Your task to perform on an android device: turn off sleep mode Image 0: 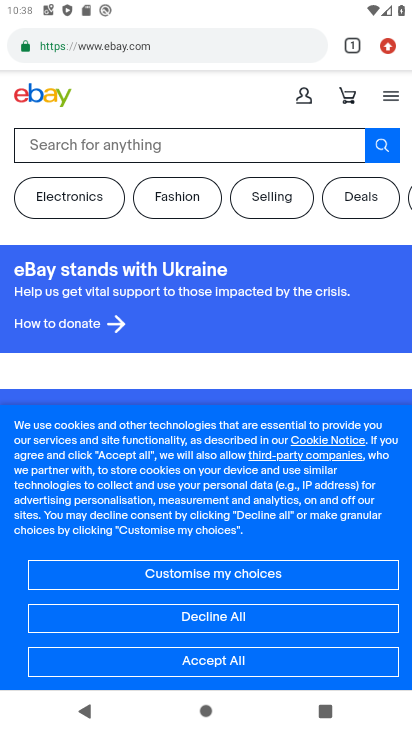
Step 0: press back button
Your task to perform on an android device: turn off sleep mode Image 1: 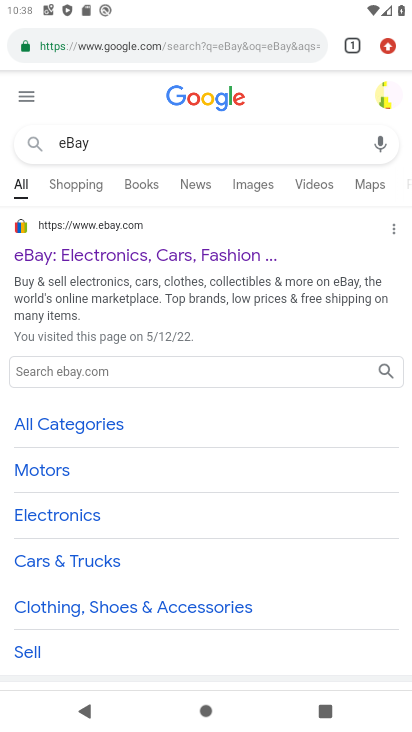
Step 1: press back button
Your task to perform on an android device: turn off sleep mode Image 2: 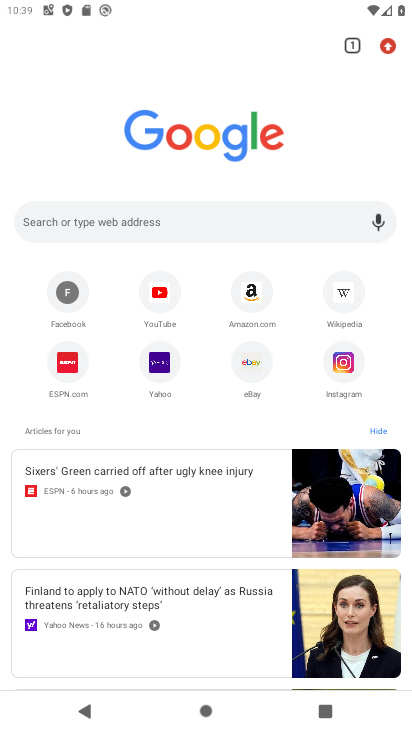
Step 2: press back button
Your task to perform on an android device: turn off sleep mode Image 3: 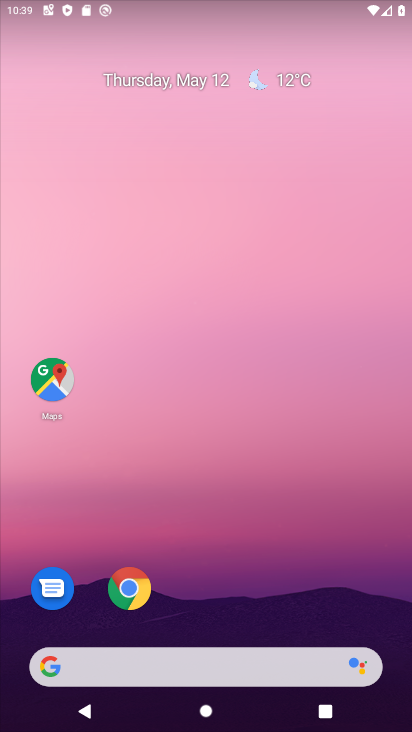
Step 3: drag from (232, 587) to (228, 170)
Your task to perform on an android device: turn off sleep mode Image 4: 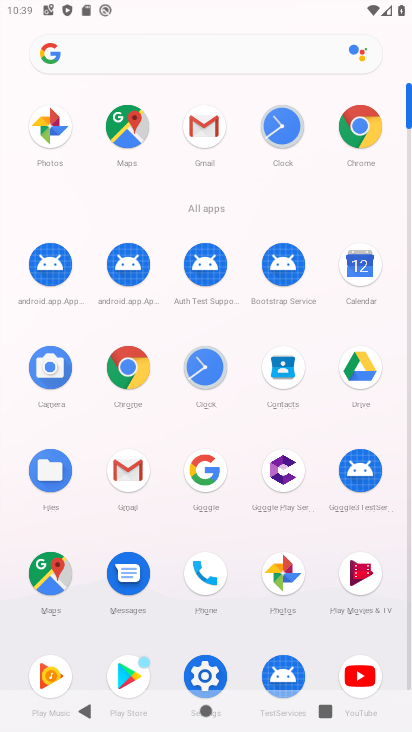
Step 4: drag from (233, 619) to (237, 409)
Your task to perform on an android device: turn off sleep mode Image 5: 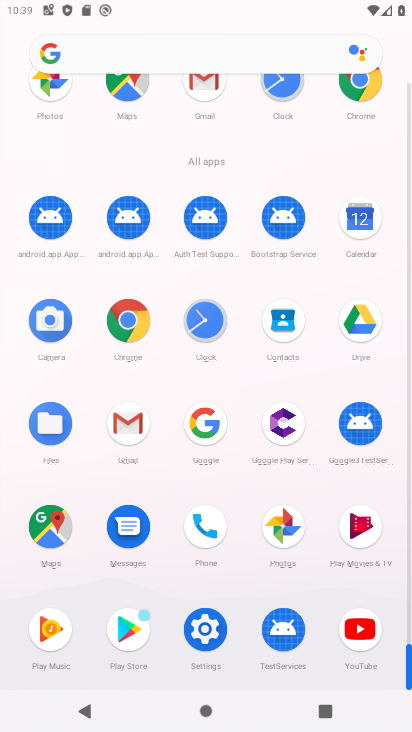
Step 5: click (206, 628)
Your task to perform on an android device: turn off sleep mode Image 6: 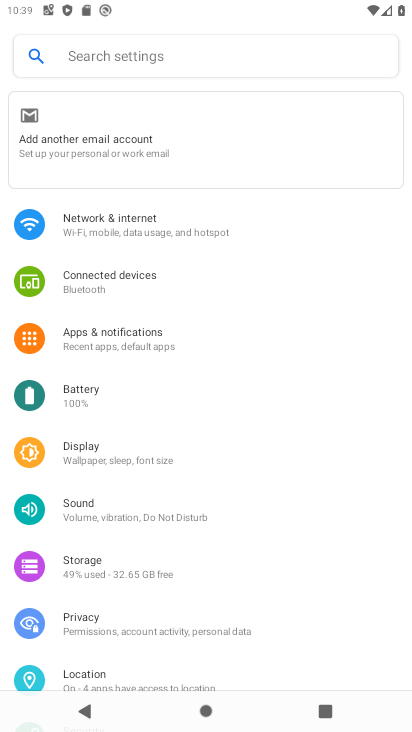
Step 6: click (155, 458)
Your task to perform on an android device: turn off sleep mode Image 7: 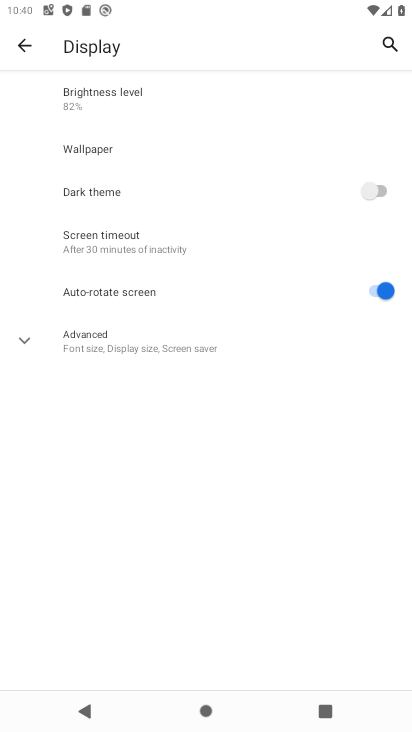
Step 7: click (128, 239)
Your task to perform on an android device: turn off sleep mode Image 8: 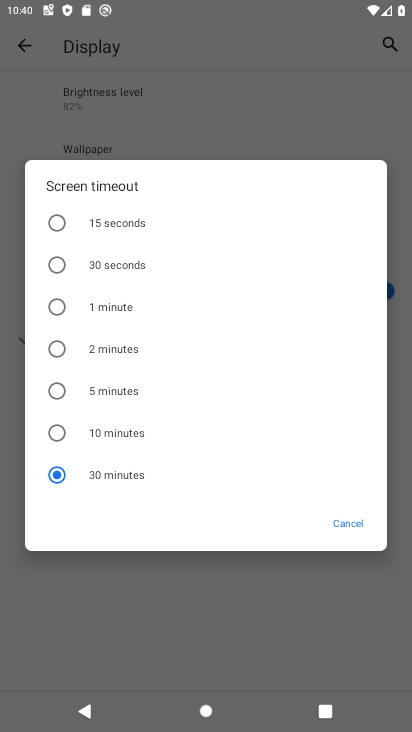
Step 8: click (345, 532)
Your task to perform on an android device: turn off sleep mode Image 9: 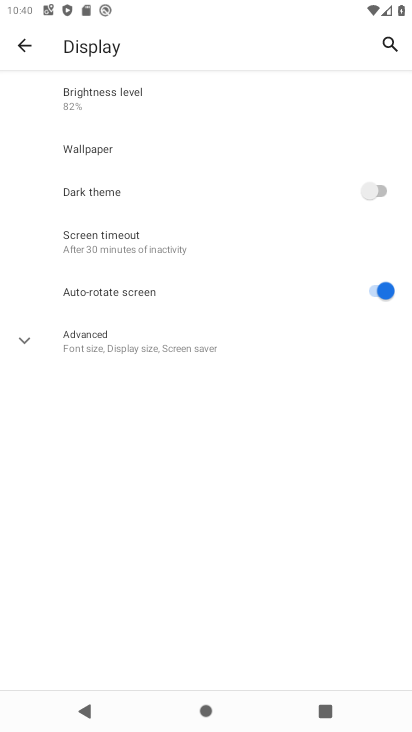
Step 9: click (120, 349)
Your task to perform on an android device: turn off sleep mode Image 10: 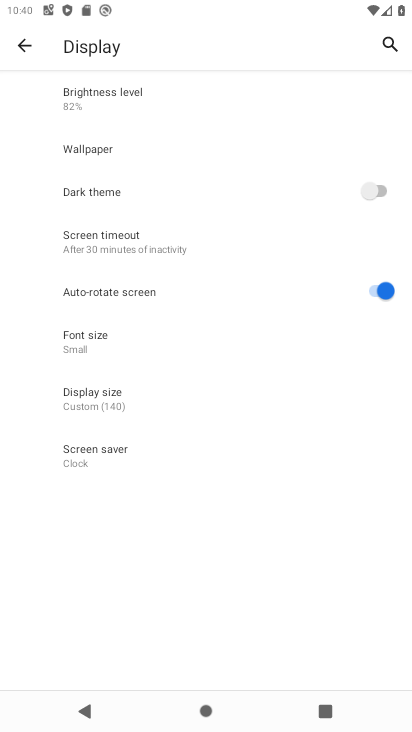
Step 10: task complete